Your task to perform on an android device: add a label to a message in the gmail app Image 0: 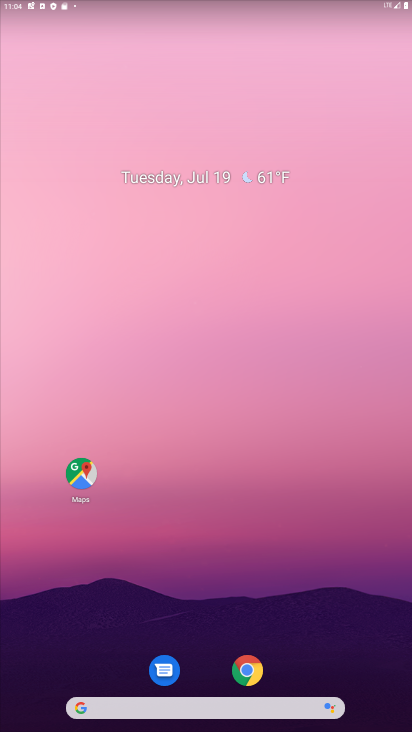
Step 0: drag from (184, 727) to (268, 102)
Your task to perform on an android device: add a label to a message in the gmail app Image 1: 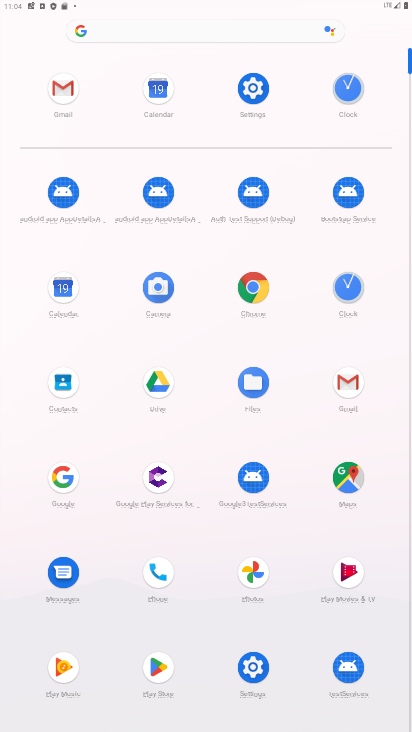
Step 1: click (341, 382)
Your task to perform on an android device: add a label to a message in the gmail app Image 2: 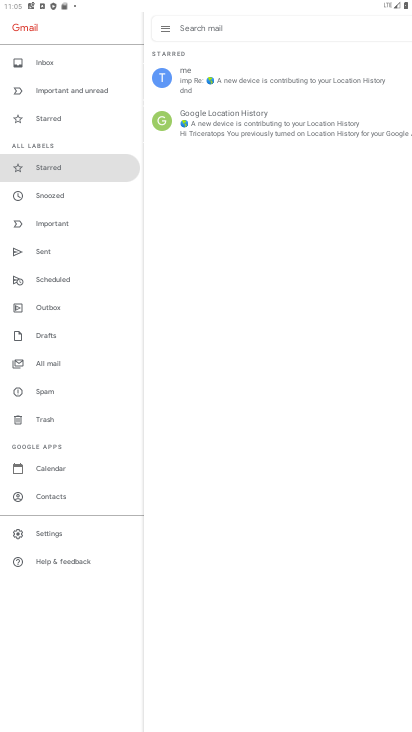
Step 2: click (307, 82)
Your task to perform on an android device: add a label to a message in the gmail app Image 3: 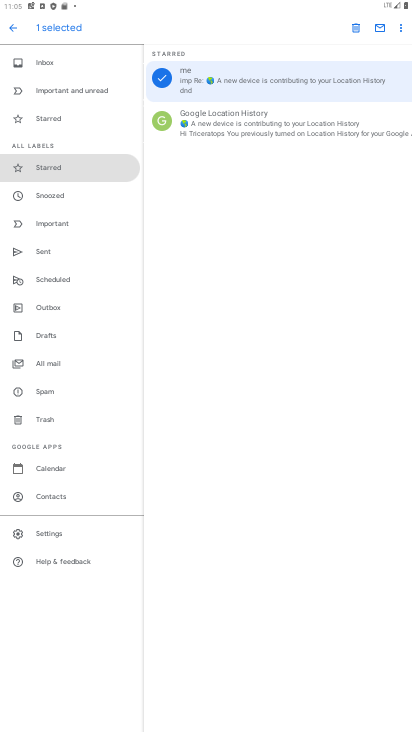
Step 3: click (399, 23)
Your task to perform on an android device: add a label to a message in the gmail app Image 4: 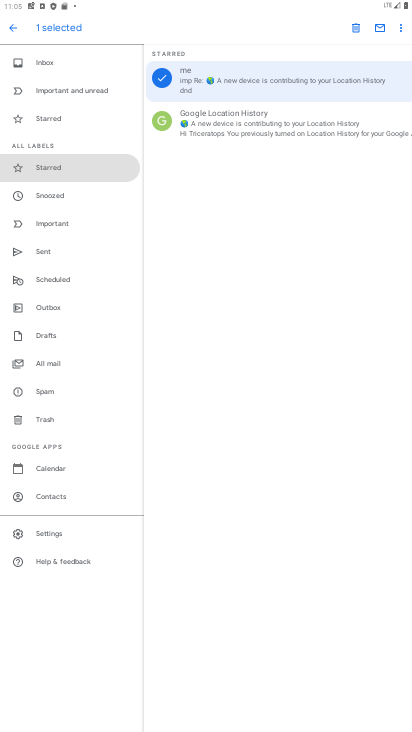
Step 4: click (400, 25)
Your task to perform on an android device: add a label to a message in the gmail app Image 5: 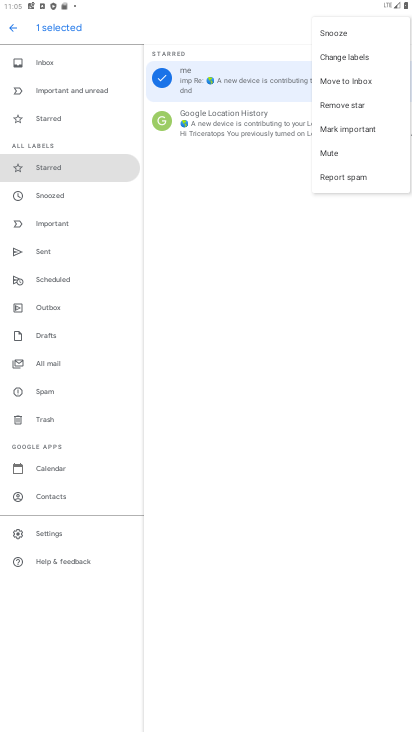
Step 5: click (371, 54)
Your task to perform on an android device: add a label to a message in the gmail app Image 6: 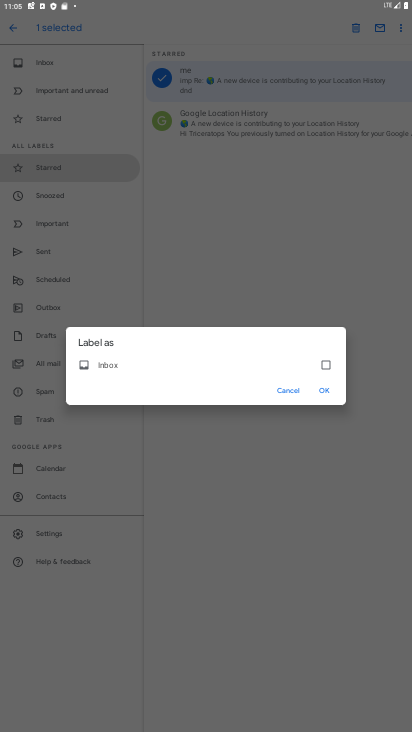
Step 6: click (324, 363)
Your task to perform on an android device: add a label to a message in the gmail app Image 7: 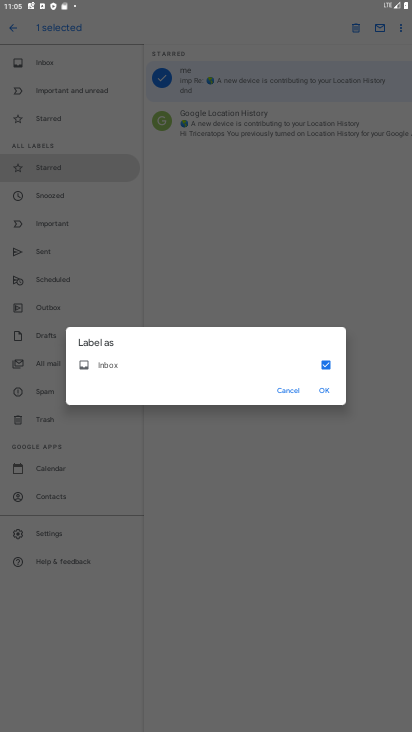
Step 7: click (326, 396)
Your task to perform on an android device: add a label to a message in the gmail app Image 8: 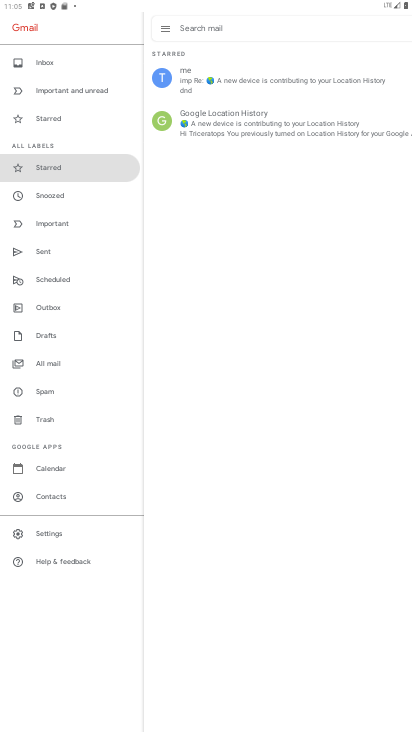
Step 8: task complete